Your task to perform on an android device: Checkthe settings for the Amazon Prime Music app Image 0: 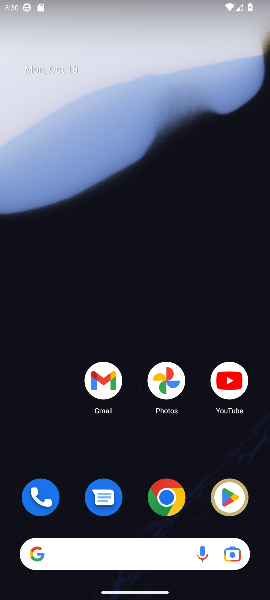
Step 0: drag from (149, 455) to (152, 247)
Your task to perform on an android device: Checkthe settings for the Amazon Prime Music app Image 1: 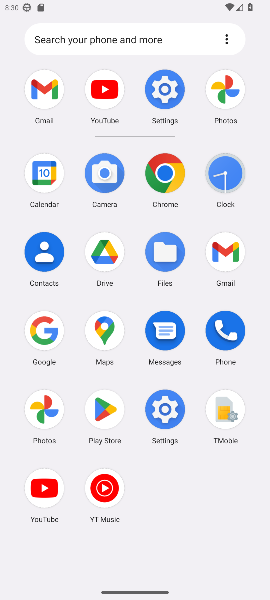
Step 1: click (35, 329)
Your task to perform on an android device: Checkthe settings for the Amazon Prime Music app Image 2: 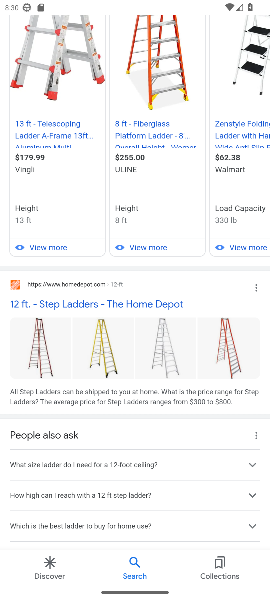
Step 2: drag from (140, 130) to (108, 427)
Your task to perform on an android device: Checkthe settings for the Amazon Prime Music app Image 3: 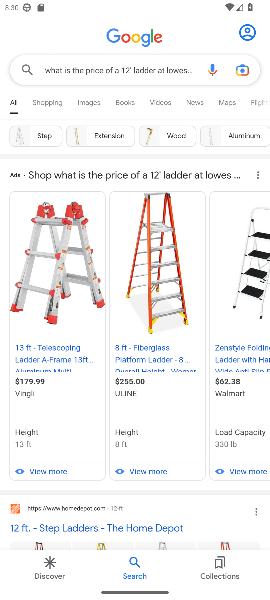
Step 3: click (160, 63)
Your task to perform on an android device: Checkthe settings for the Amazon Prime Music app Image 4: 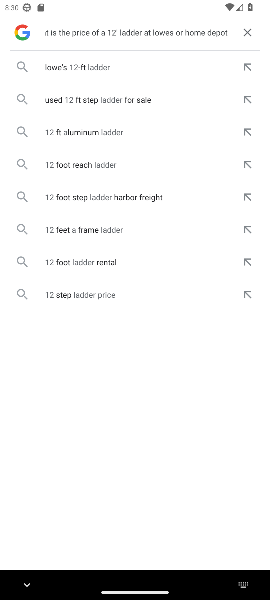
Step 4: click (239, 29)
Your task to perform on an android device: Checkthe settings for the Amazon Prime Music app Image 5: 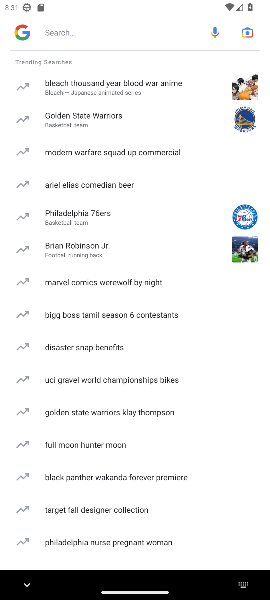
Step 5: click (87, 29)
Your task to perform on an android device: Checkthe settings for the Amazon Prime Music app Image 6: 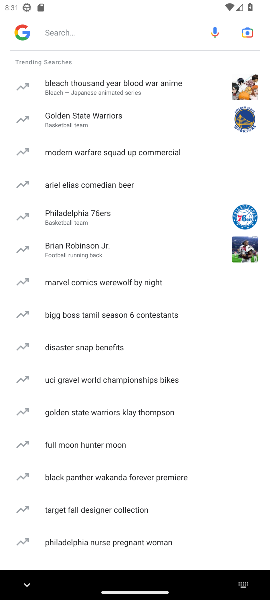
Step 6: type "Checkthe settings for the Amazon Prime Music app "
Your task to perform on an android device: Checkthe settings for the Amazon Prime Music app Image 7: 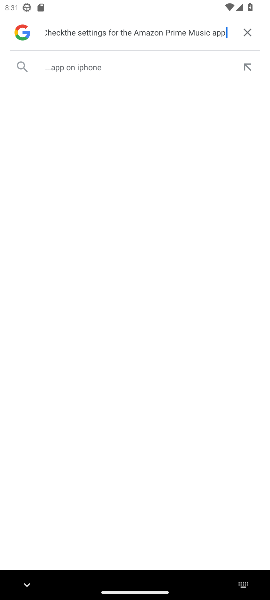
Step 7: click (71, 64)
Your task to perform on an android device: Checkthe settings for the Amazon Prime Music app Image 8: 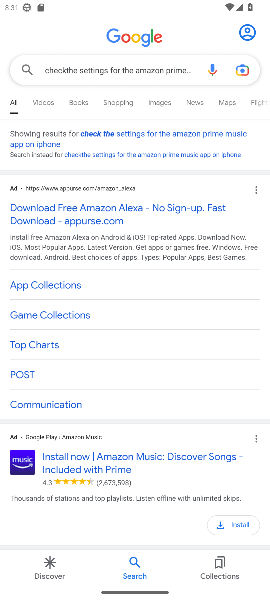
Step 8: click (77, 453)
Your task to perform on an android device: Checkthe settings for the Amazon Prime Music app Image 9: 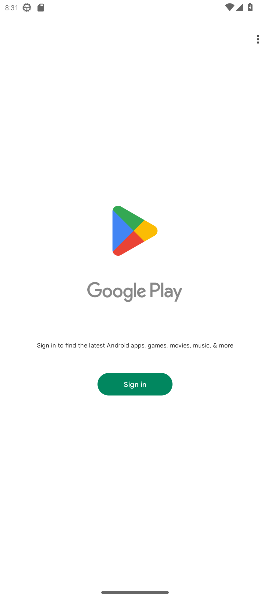
Step 9: click (162, 387)
Your task to perform on an android device: Checkthe settings for the Amazon Prime Music app Image 10: 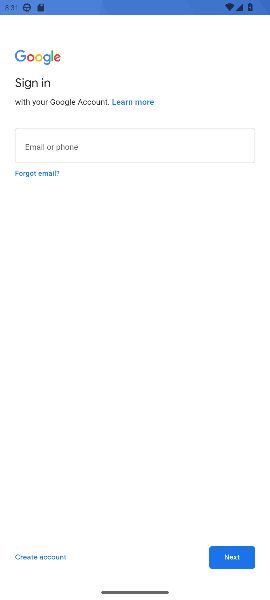
Step 10: task complete